Your task to perform on an android device: move an email to a new category in the gmail app Image 0: 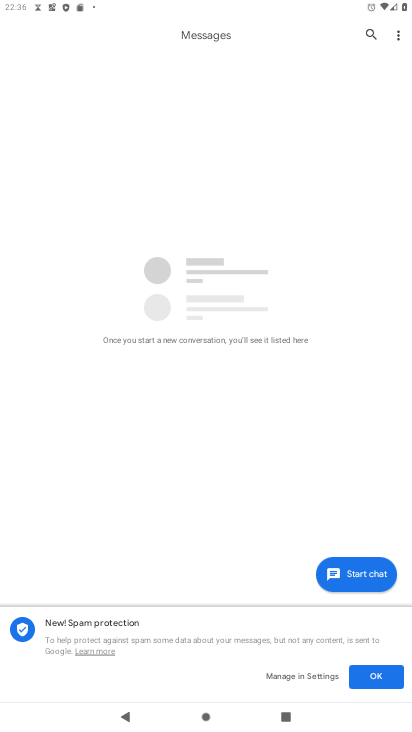
Step 0: drag from (234, 389) to (2, 452)
Your task to perform on an android device: move an email to a new category in the gmail app Image 1: 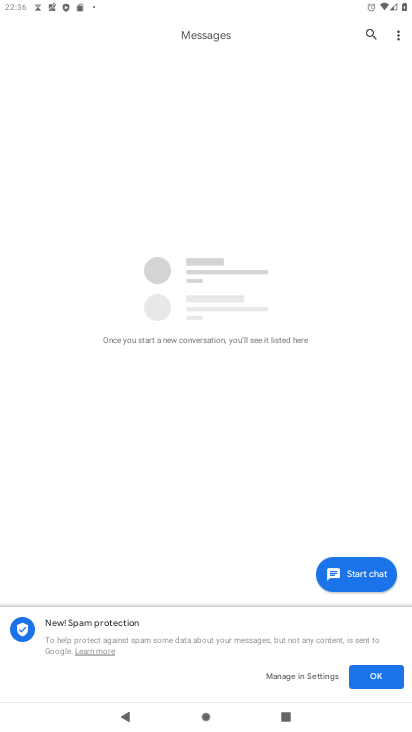
Step 1: drag from (179, 569) to (204, 349)
Your task to perform on an android device: move an email to a new category in the gmail app Image 2: 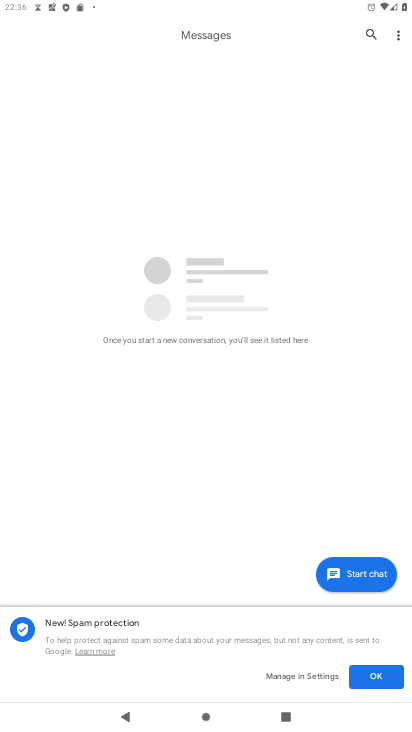
Step 2: press home button
Your task to perform on an android device: move an email to a new category in the gmail app Image 3: 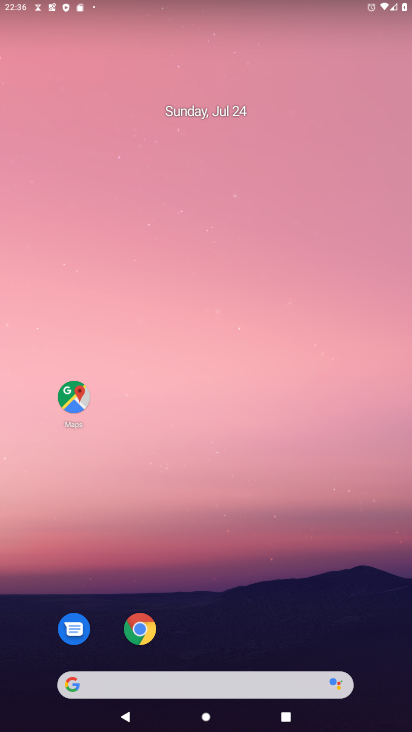
Step 3: drag from (214, 583) to (236, 150)
Your task to perform on an android device: move an email to a new category in the gmail app Image 4: 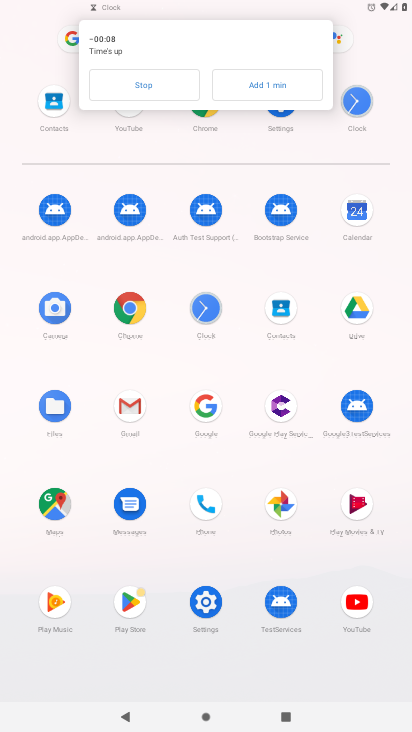
Step 4: click (118, 408)
Your task to perform on an android device: move an email to a new category in the gmail app Image 5: 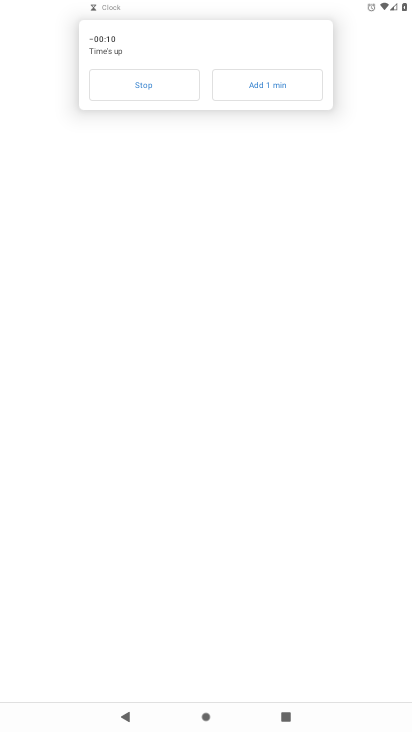
Step 5: click (147, 84)
Your task to perform on an android device: move an email to a new category in the gmail app Image 6: 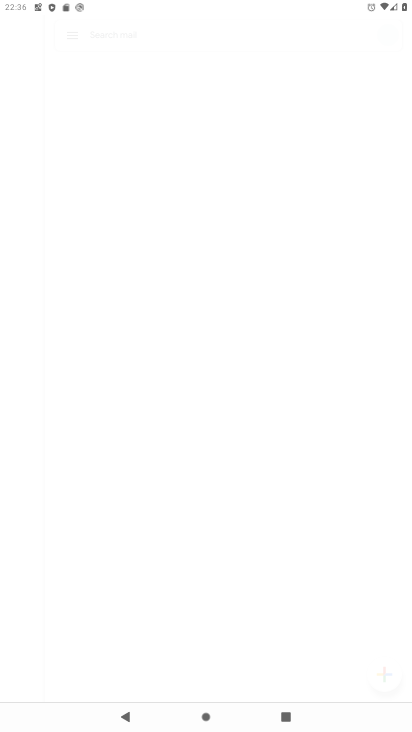
Step 6: drag from (168, 481) to (189, 275)
Your task to perform on an android device: move an email to a new category in the gmail app Image 7: 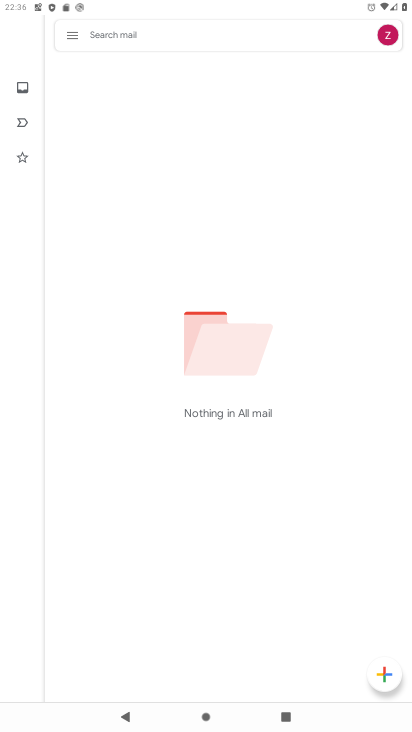
Step 7: drag from (166, 486) to (166, 266)
Your task to perform on an android device: move an email to a new category in the gmail app Image 8: 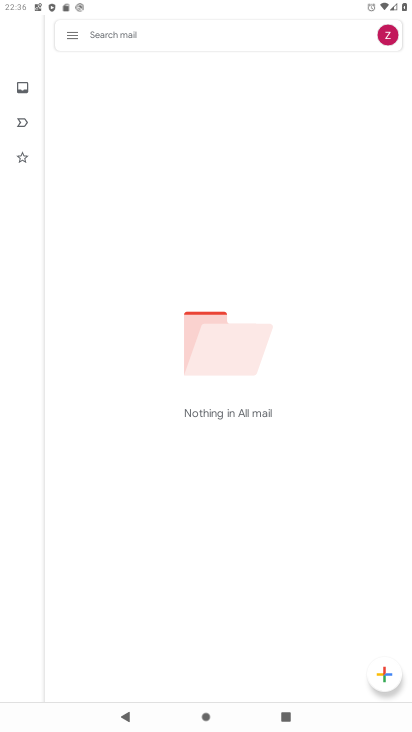
Step 8: click (68, 32)
Your task to perform on an android device: move an email to a new category in the gmail app Image 9: 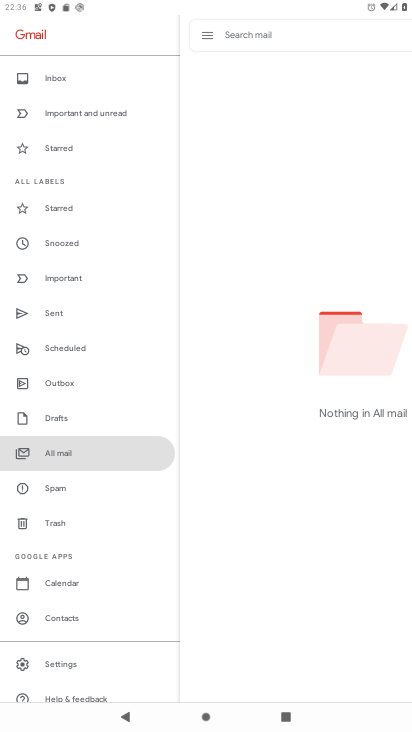
Step 9: click (45, 85)
Your task to perform on an android device: move an email to a new category in the gmail app Image 10: 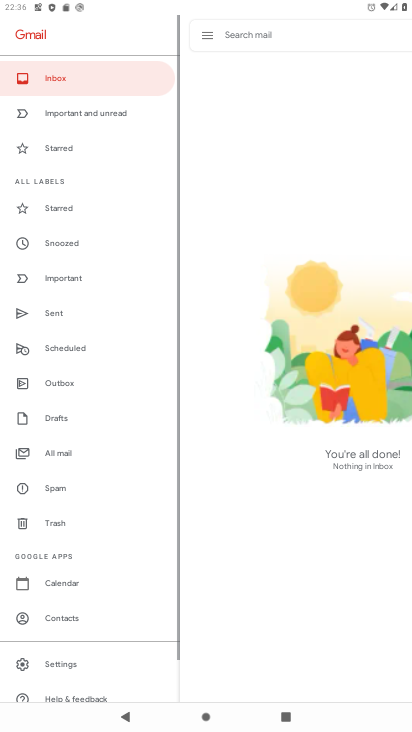
Step 10: click (291, 491)
Your task to perform on an android device: move an email to a new category in the gmail app Image 11: 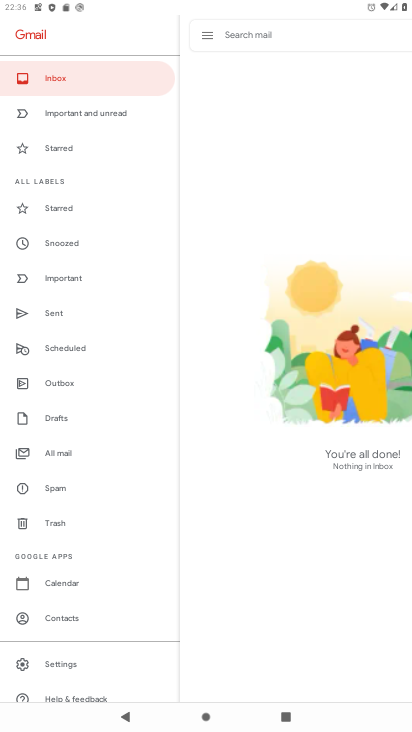
Step 11: task complete